Your task to perform on an android device: View the shopping cart on newegg. Search for duracell triple a on newegg, select the first entry, and add it to the cart. Image 0: 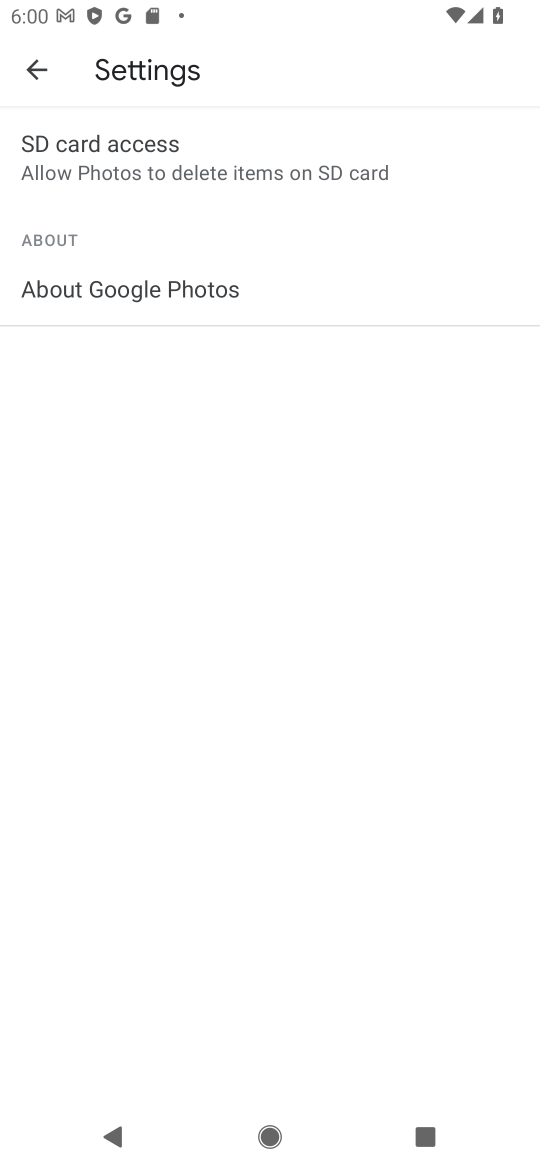
Step 0: press home button
Your task to perform on an android device: View the shopping cart on newegg. Search for duracell triple a on newegg, select the first entry, and add it to the cart. Image 1: 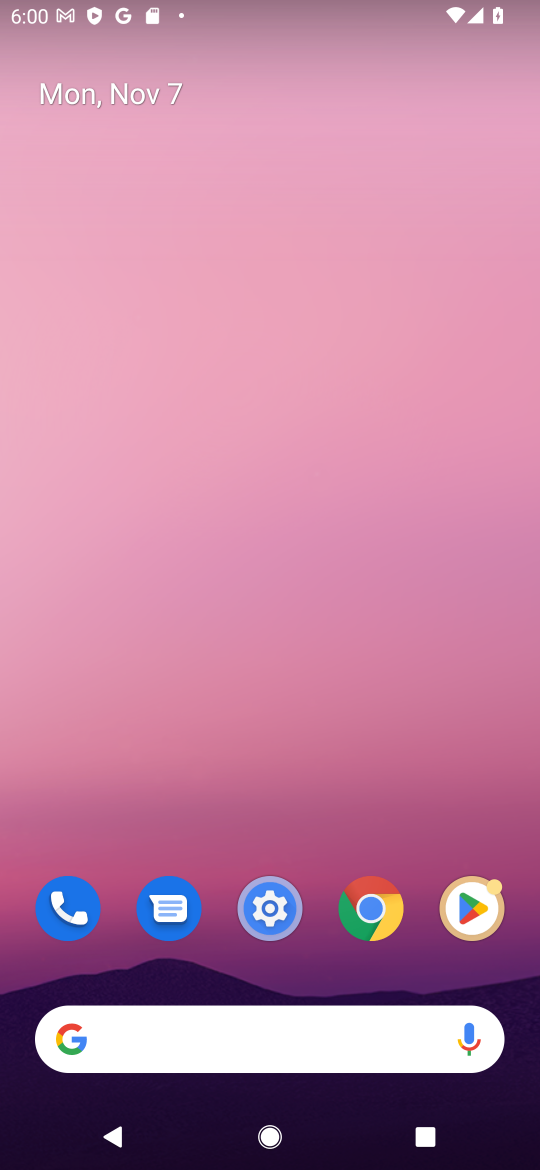
Step 1: click (226, 1041)
Your task to perform on an android device: View the shopping cart on newegg. Search for duracell triple a on newegg, select the first entry, and add it to the cart. Image 2: 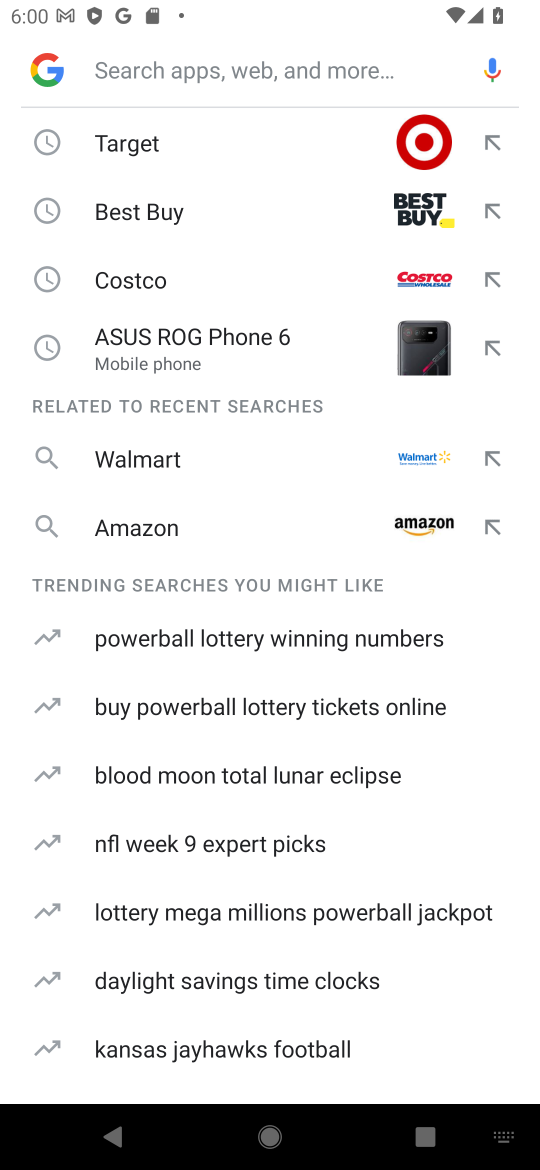
Step 2: type "newegg"
Your task to perform on an android device: View the shopping cart on newegg. Search for duracell triple a on newegg, select the first entry, and add it to the cart. Image 3: 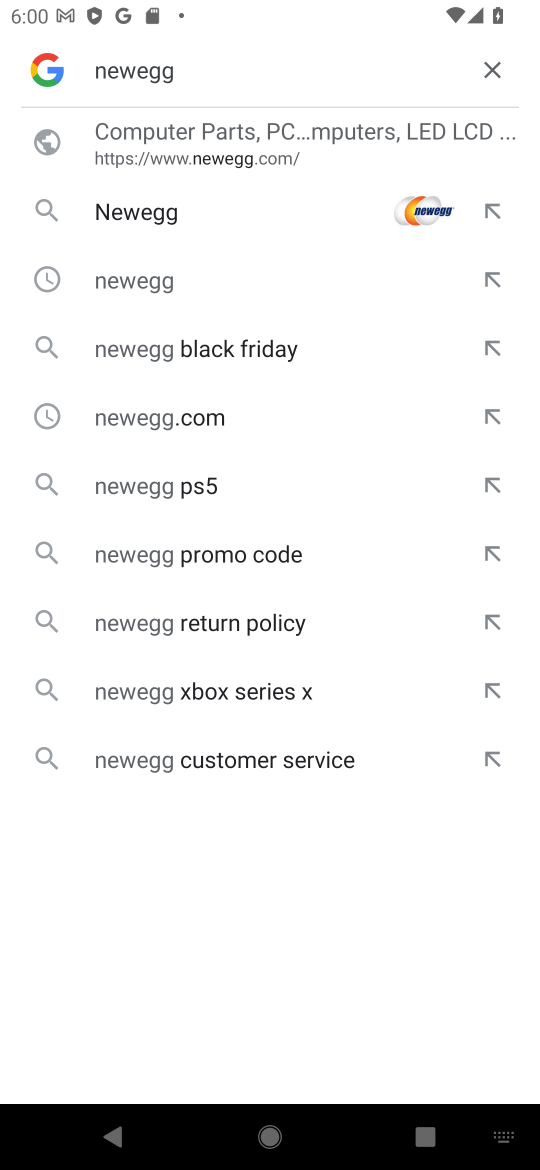
Step 3: click (153, 201)
Your task to perform on an android device: View the shopping cart on newegg. Search for duracell triple a on newegg, select the first entry, and add it to the cart. Image 4: 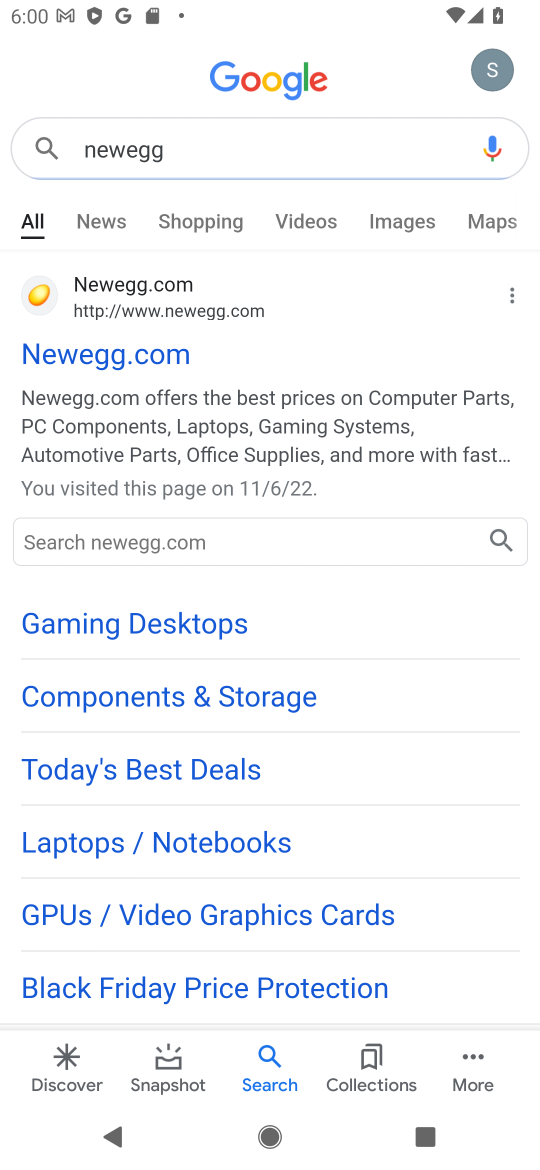
Step 4: click (169, 340)
Your task to perform on an android device: View the shopping cart on newegg. Search for duracell triple a on newegg, select the first entry, and add it to the cart. Image 5: 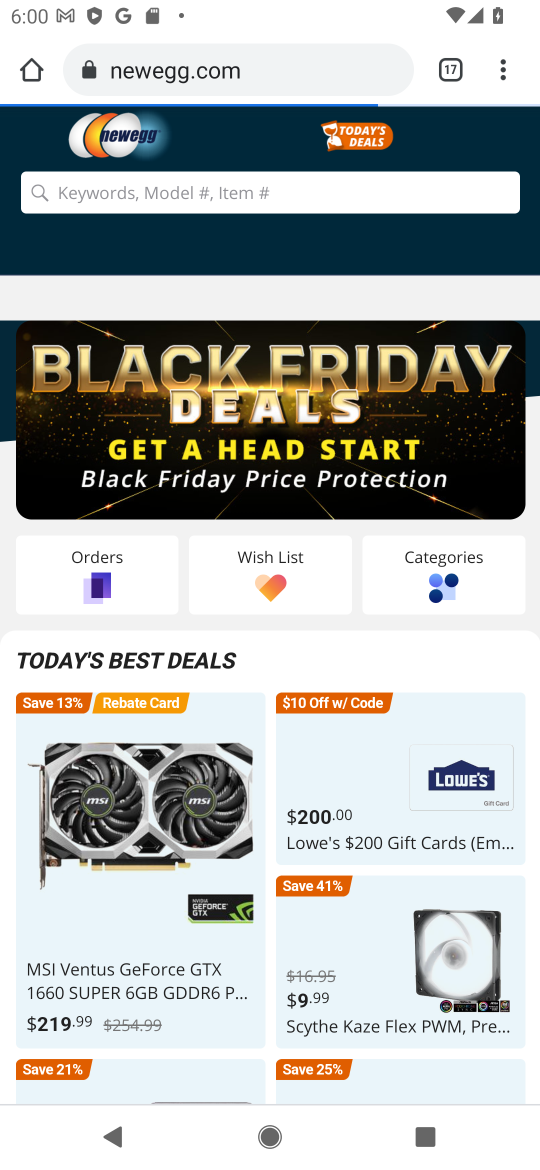
Step 5: task complete